Your task to perform on an android device: What's the weather today? Image 0: 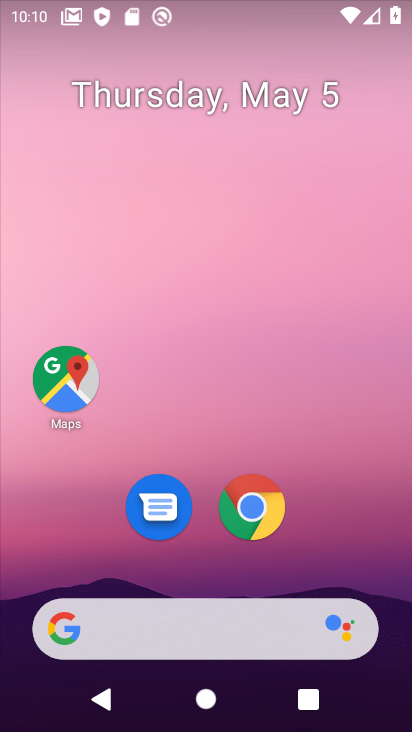
Step 0: click (102, 628)
Your task to perform on an android device: What's the weather today? Image 1: 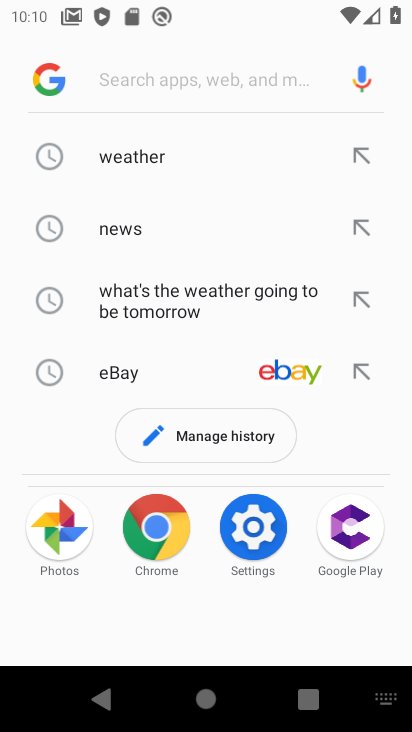
Step 1: click (119, 163)
Your task to perform on an android device: What's the weather today? Image 2: 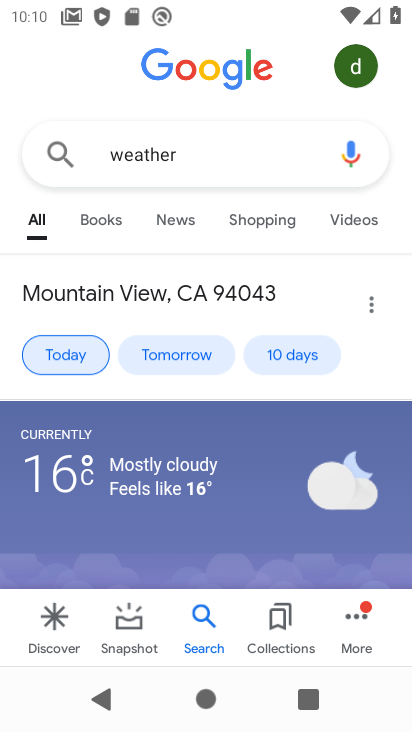
Step 2: task complete